Your task to perform on an android device: turn on the 24-hour format for clock Image 0: 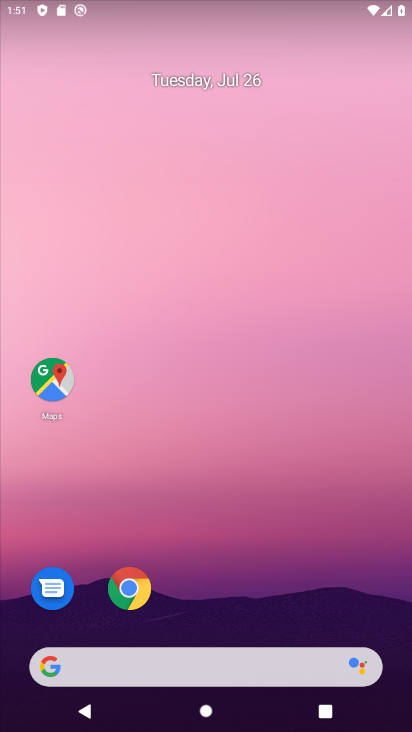
Step 0: drag from (266, 613) to (196, 121)
Your task to perform on an android device: turn on the 24-hour format for clock Image 1: 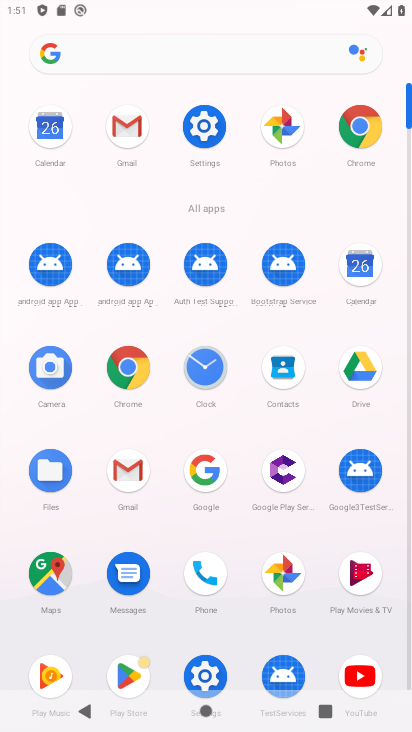
Step 1: click (209, 368)
Your task to perform on an android device: turn on the 24-hour format for clock Image 2: 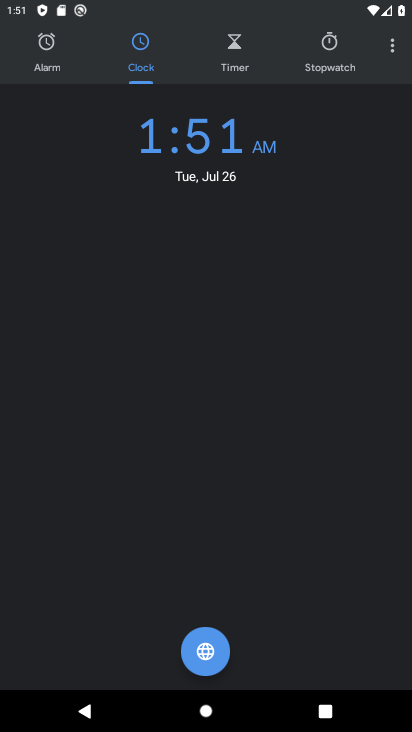
Step 2: click (395, 43)
Your task to perform on an android device: turn on the 24-hour format for clock Image 3: 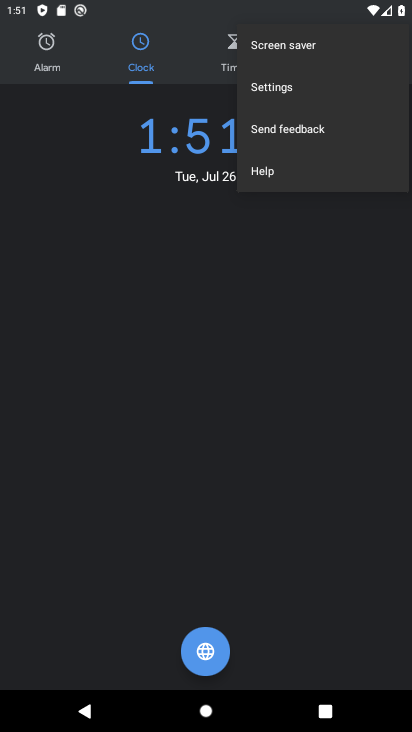
Step 3: click (314, 86)
Your task to perform on an android device: turn on the 24-hour format for clock Image 4: 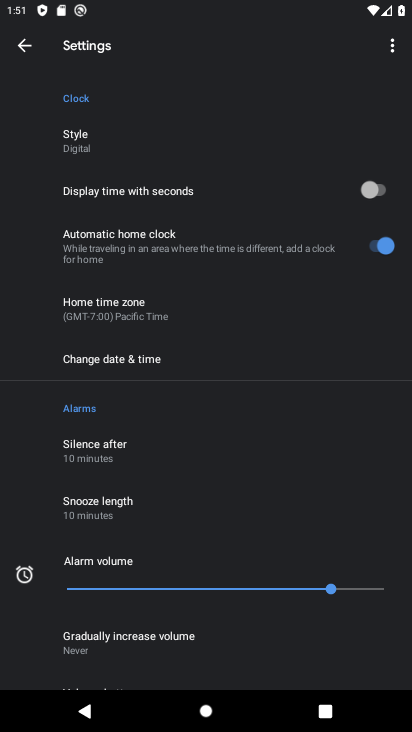
Step 4: click (169, 357)
Your task to perform on an android device: turn on the 24-hour format for clock Image 5: 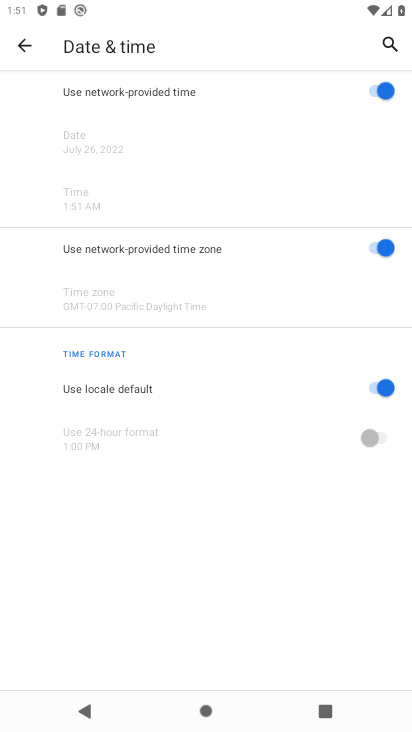
Step 5: click (388, 390)
Your task to perform on an android device: turn on the 24-hour format for clock Image 6: 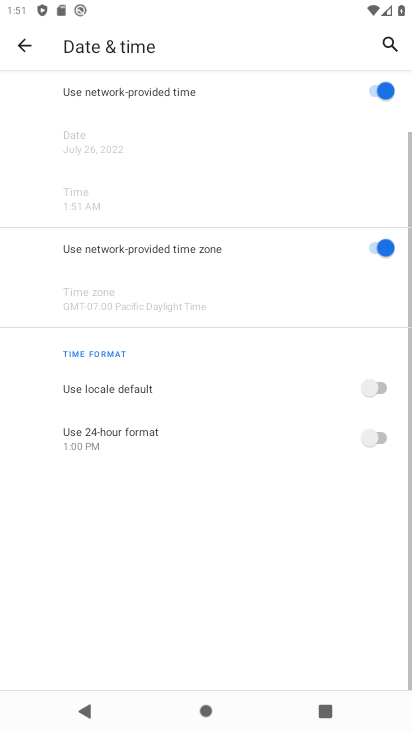
Step 6: click (378, 437)
Your task to perform on an android device: turn on the 24-hour format for clock Image 7: 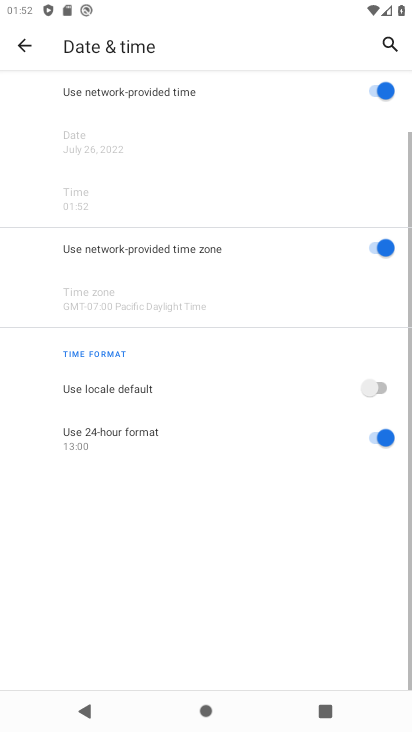
Step 7: task complete